Your task to perform on an android device: Go to sound settings Image 0: 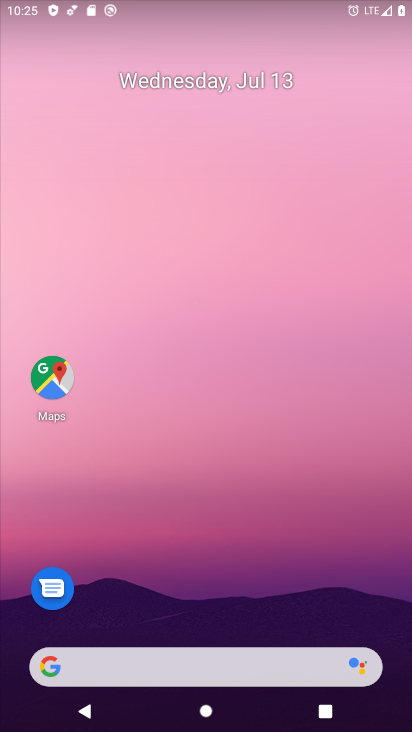
Step 0: drag from (183, 657) to (127, 87)
Your task to perform on an android device: Go to sound settings Image 1: 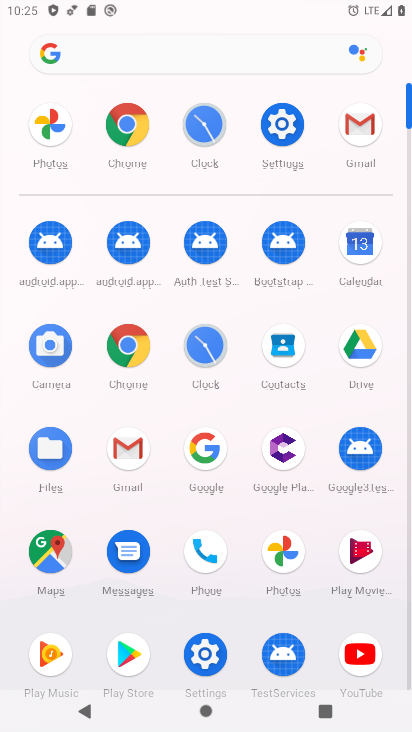
Step 1: click (296, 140)
Your task to perform on an android device: Go to sound settings Image 2: 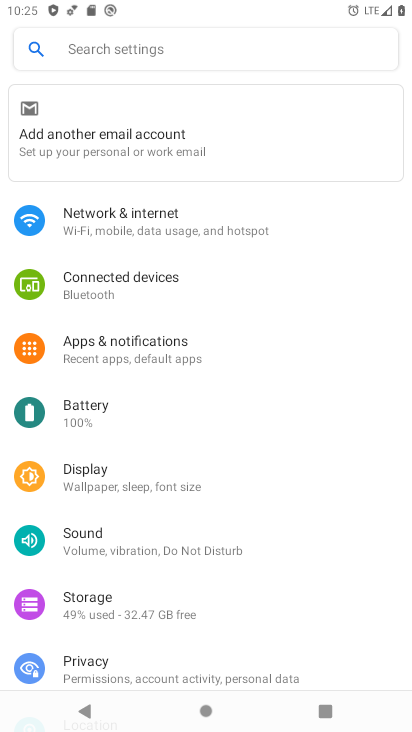
Step 2: click (113, 524)
Your task to perform on an android device: Go to sound settings Image 3: 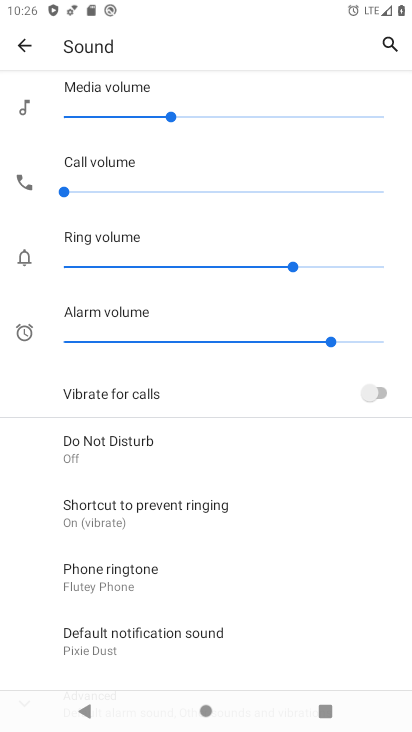
Step 3: task complete